Your task to perform on an android device: stop showing notifications on the lock screen Image 0: 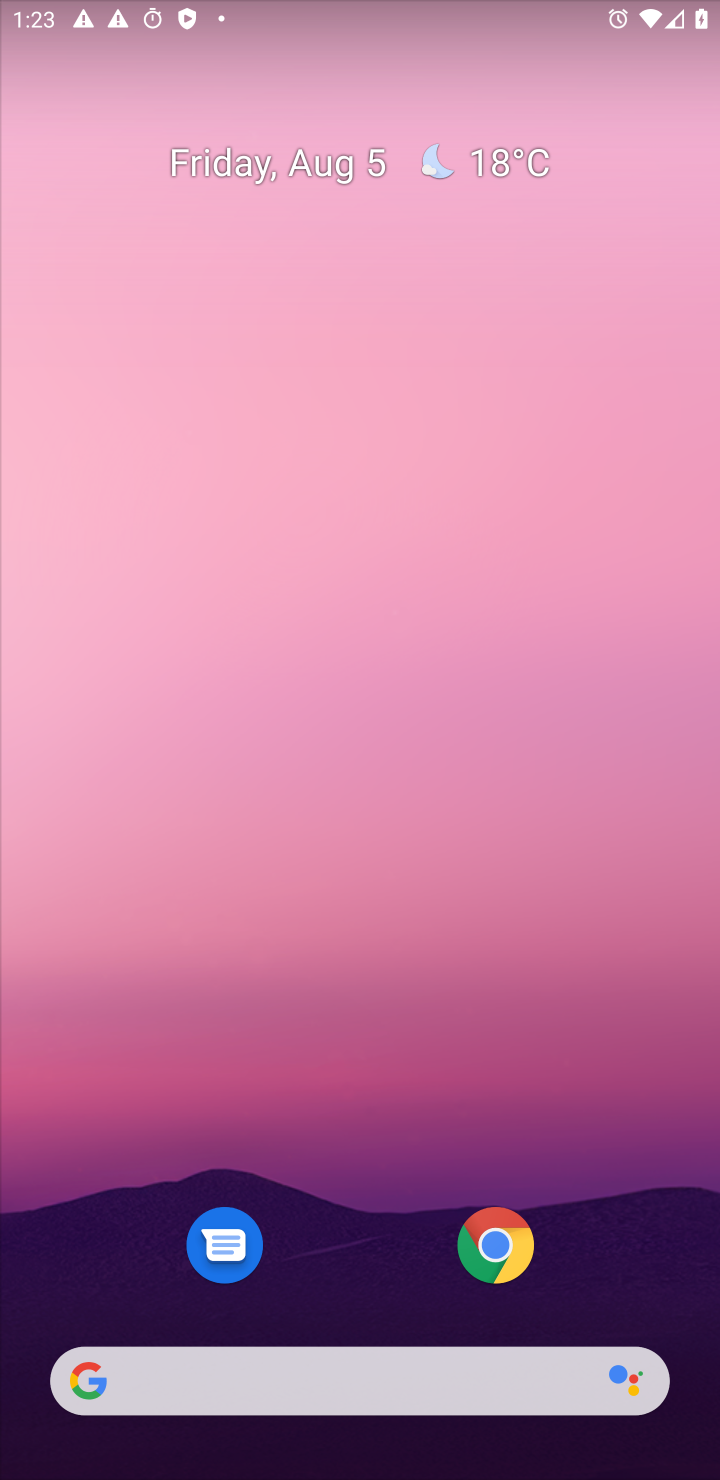
Step 0: press home button
Your task to perform on an android device: stop showing notifications on the lock screen Image 1: 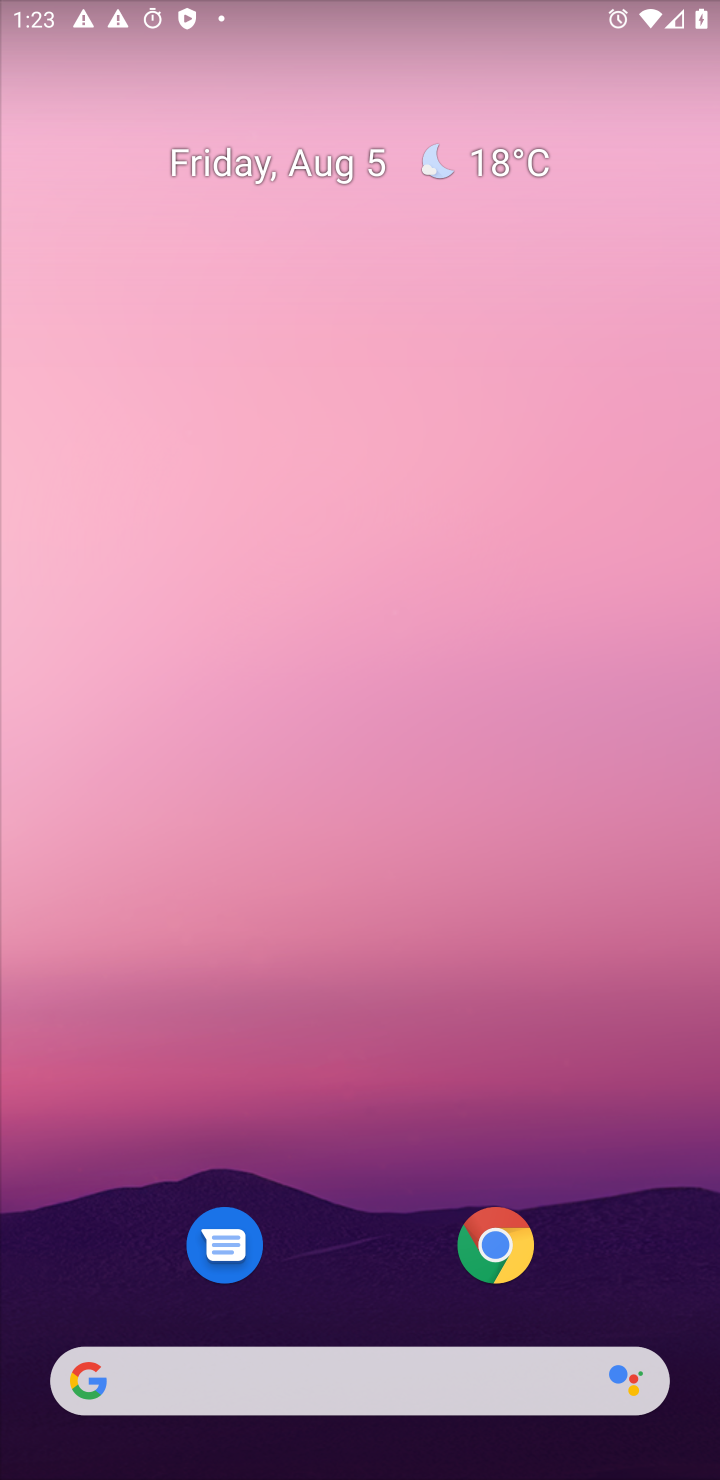
Step 1: drag from (383, 1298) to (376, 421)
Your task to perform on an android device: stop showing notifications on the lock screen Image 2: 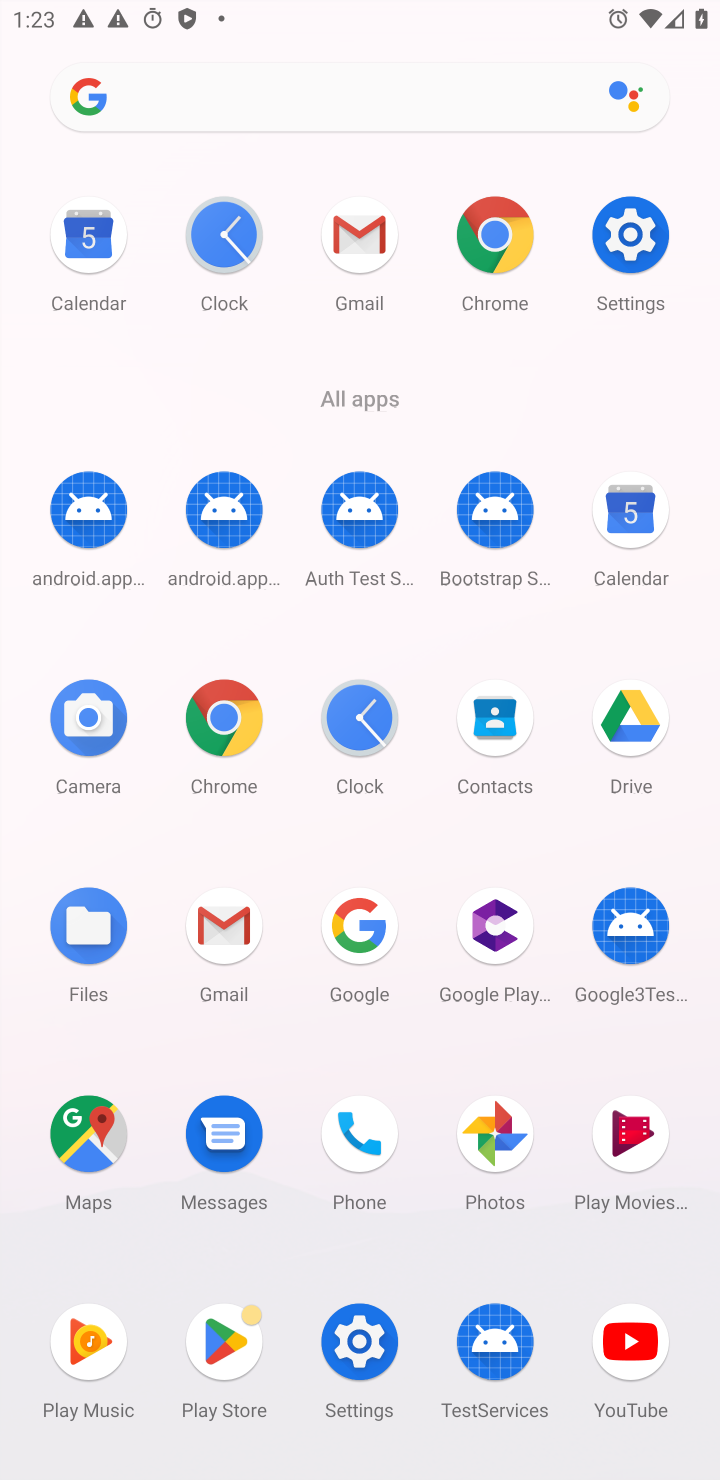
Step 2: click (620, 240)
Your task to perform on an android device: stop showing notifications on the lock screen Image 3: 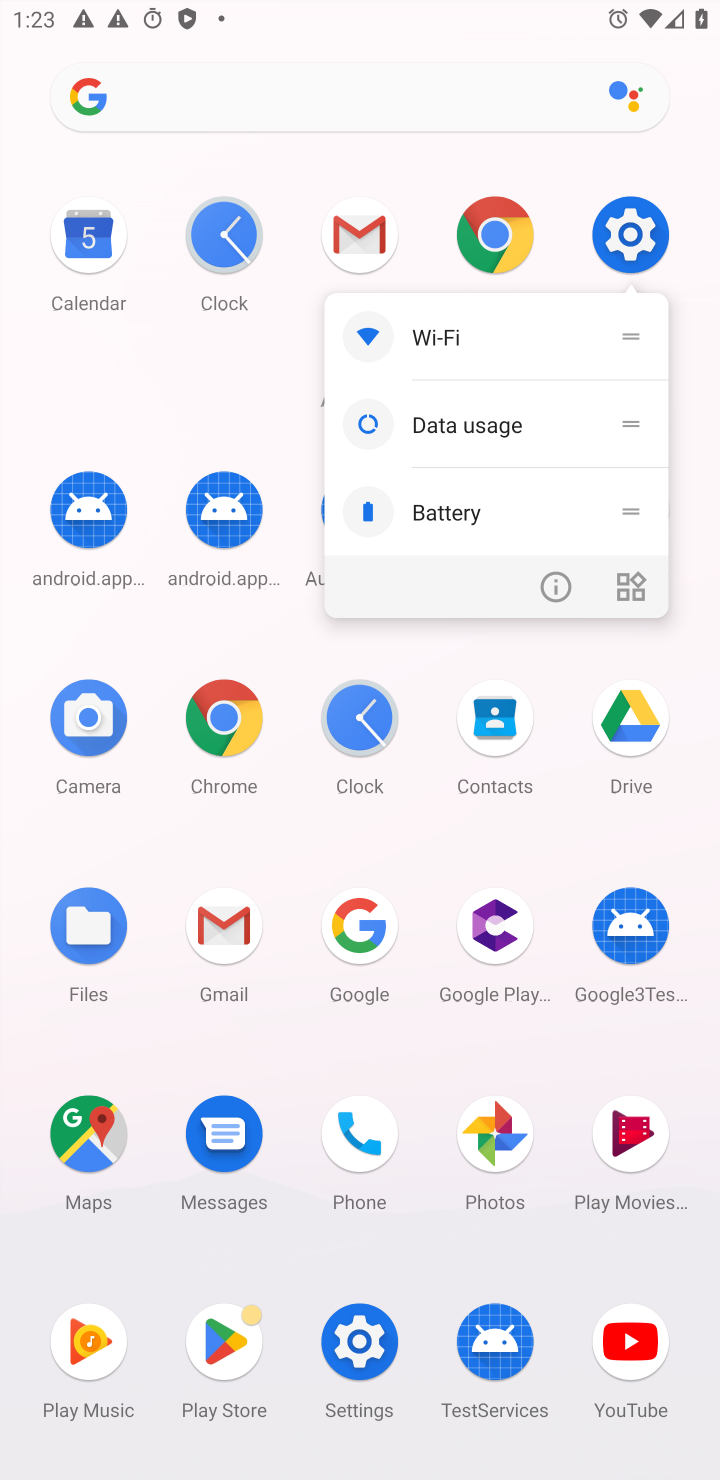
Step 3: click (620, 240)
Your task to perform on an android device: stop showing notifications on the lock screen Image 4: 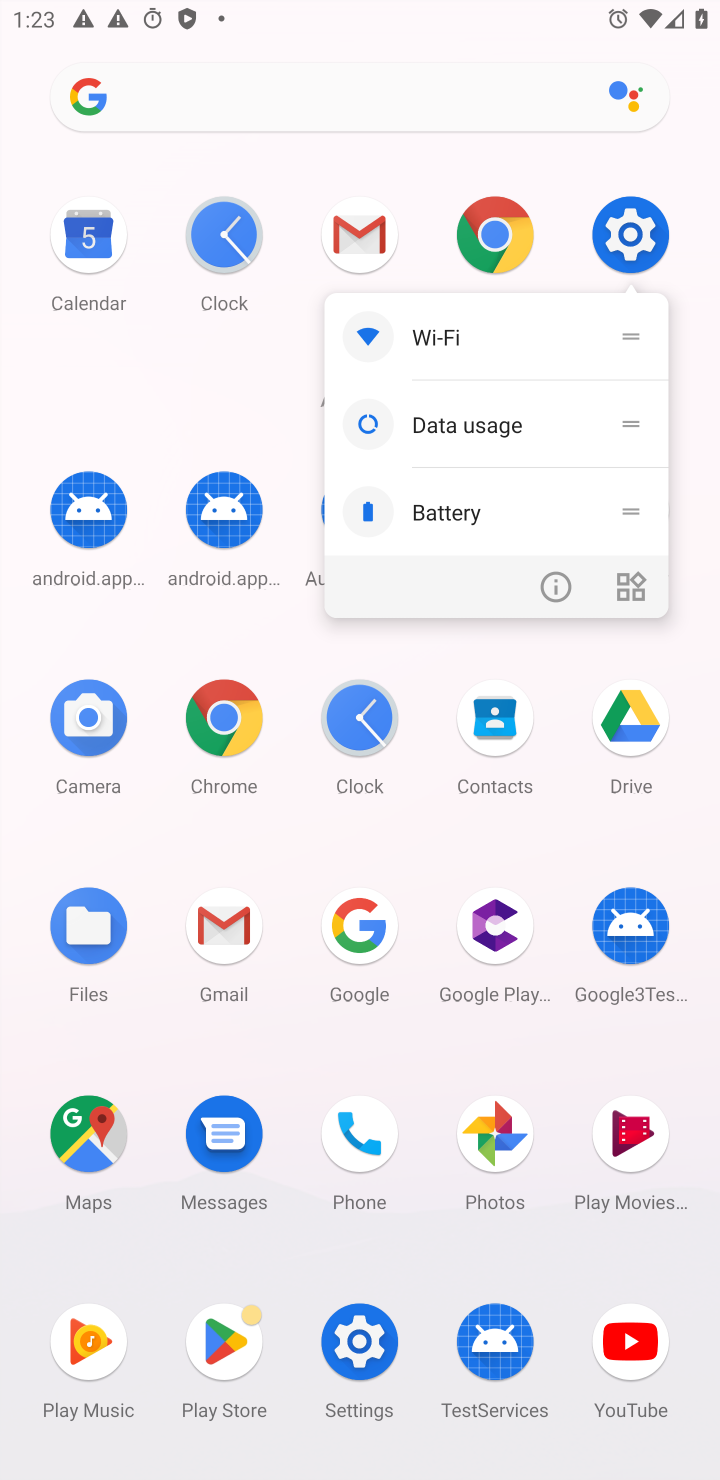
Step 4: click (640, 235)
Your task to perform on an android device: stop showing notifications on the lock screen Image 5: 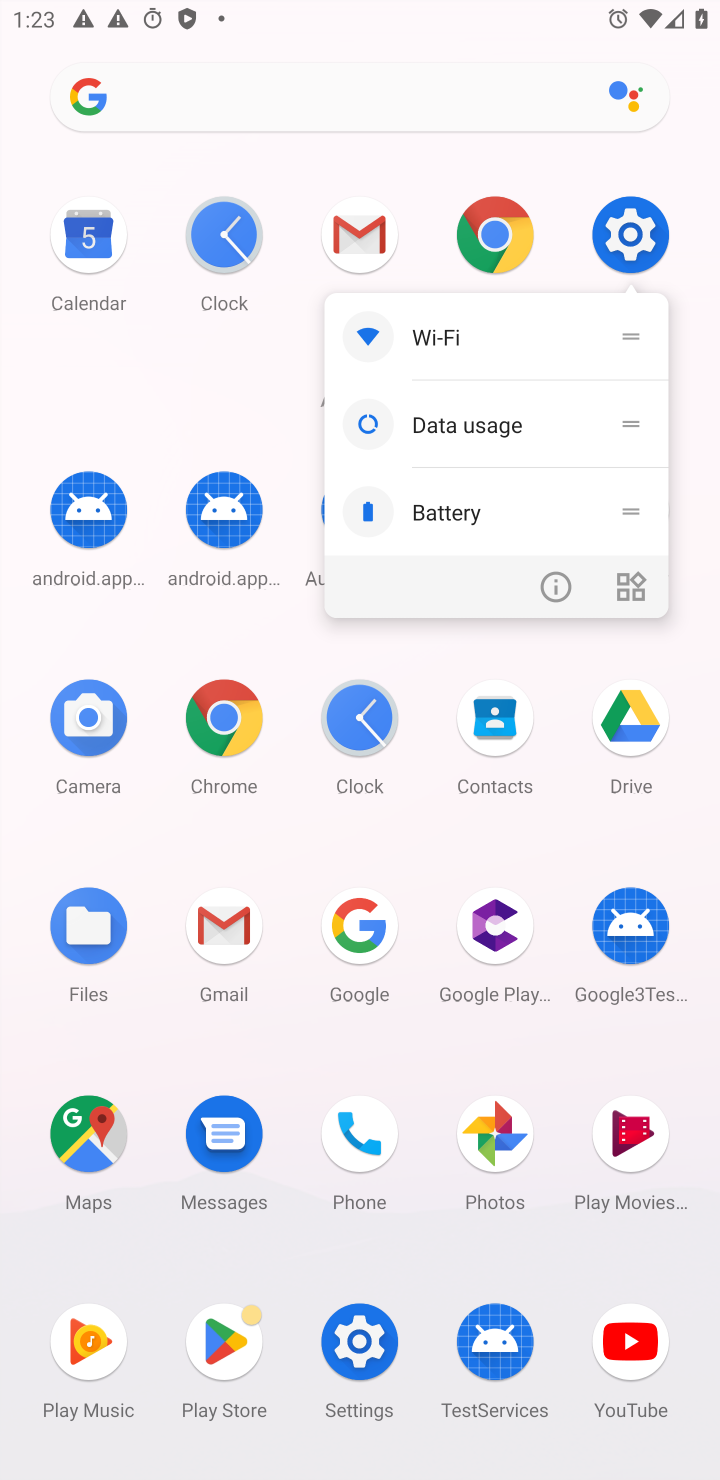
Step 5: click (640, 235)
Your task to perform on an android device: stop showing notifications on the lock screen Image 6: 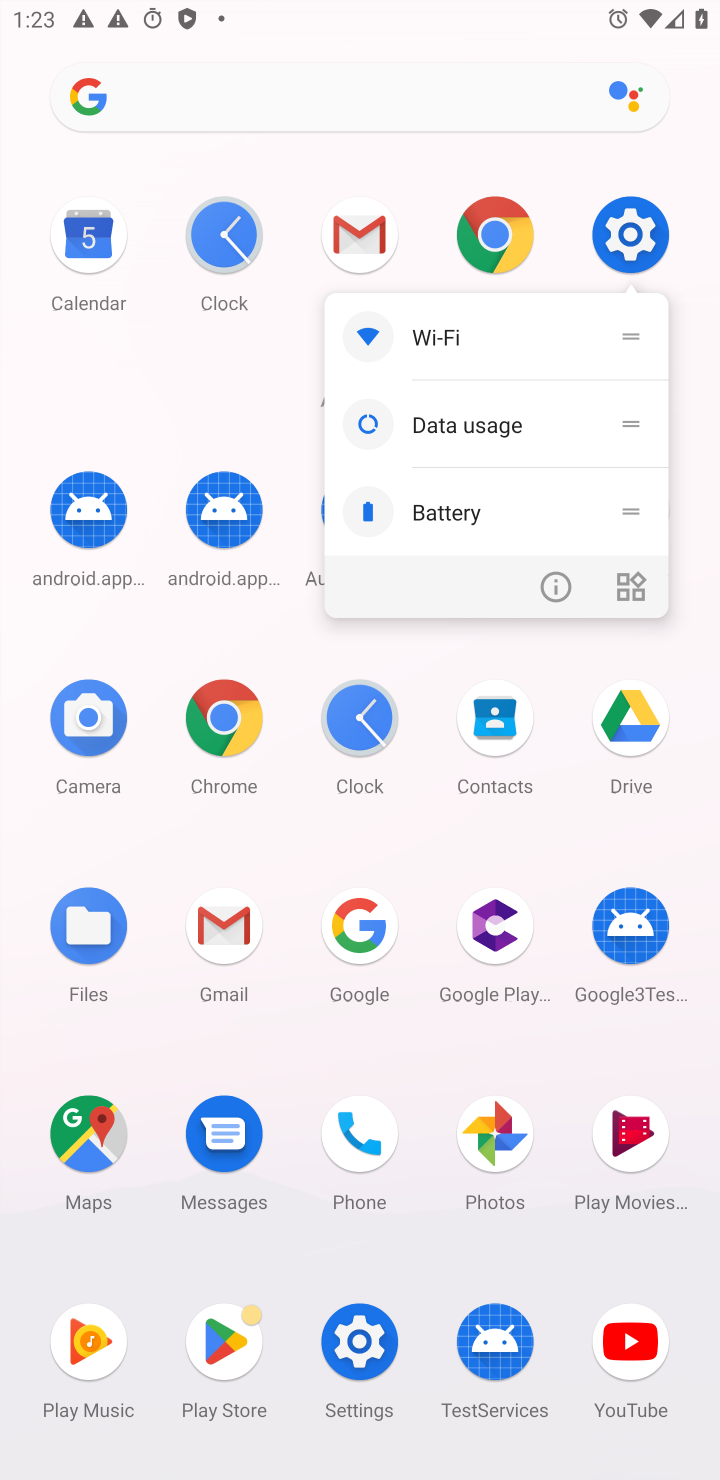
Step 6: click (628, 241)
Your task to perform on an android device: stop showing notifications on the lock screen Image 7: 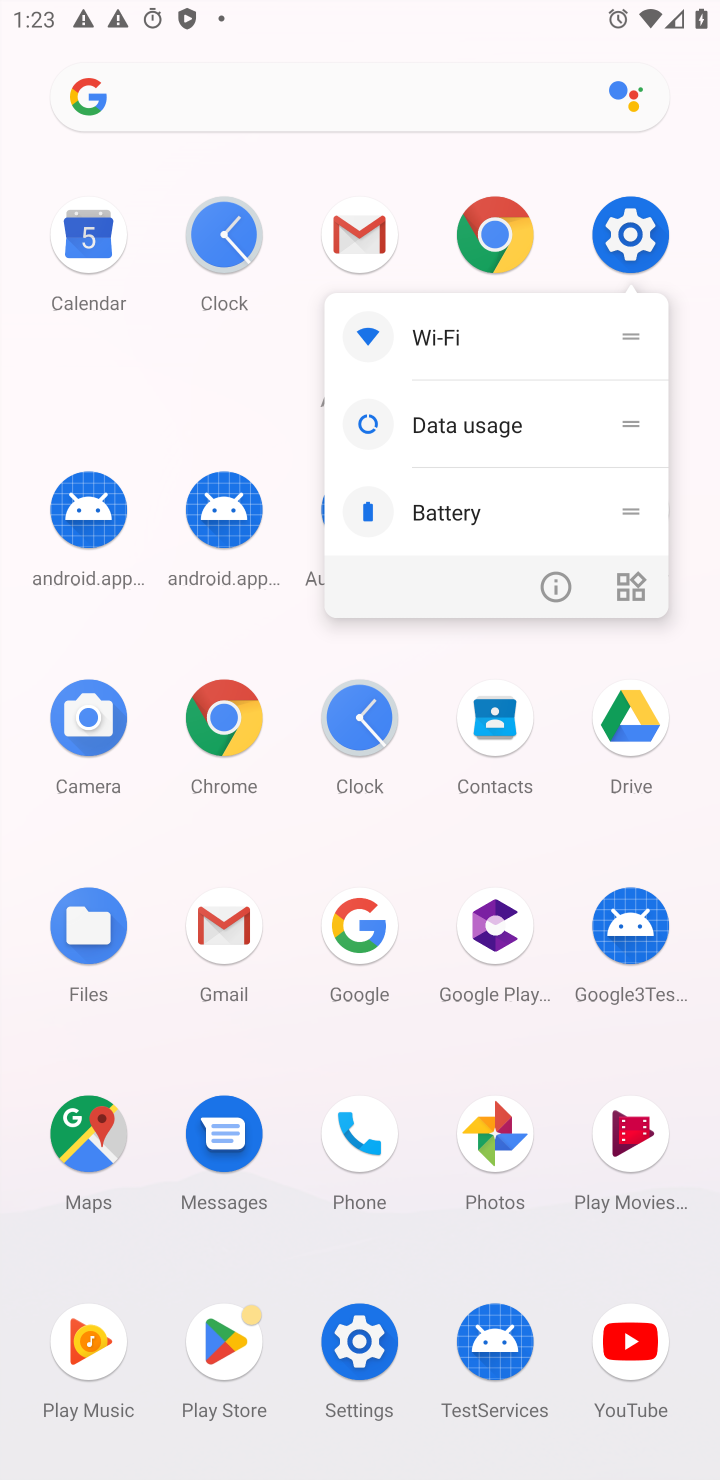
Step 7: click (626, 230)
Your task to perform on an android device: stop showing notifications on the lock screen Image 8: 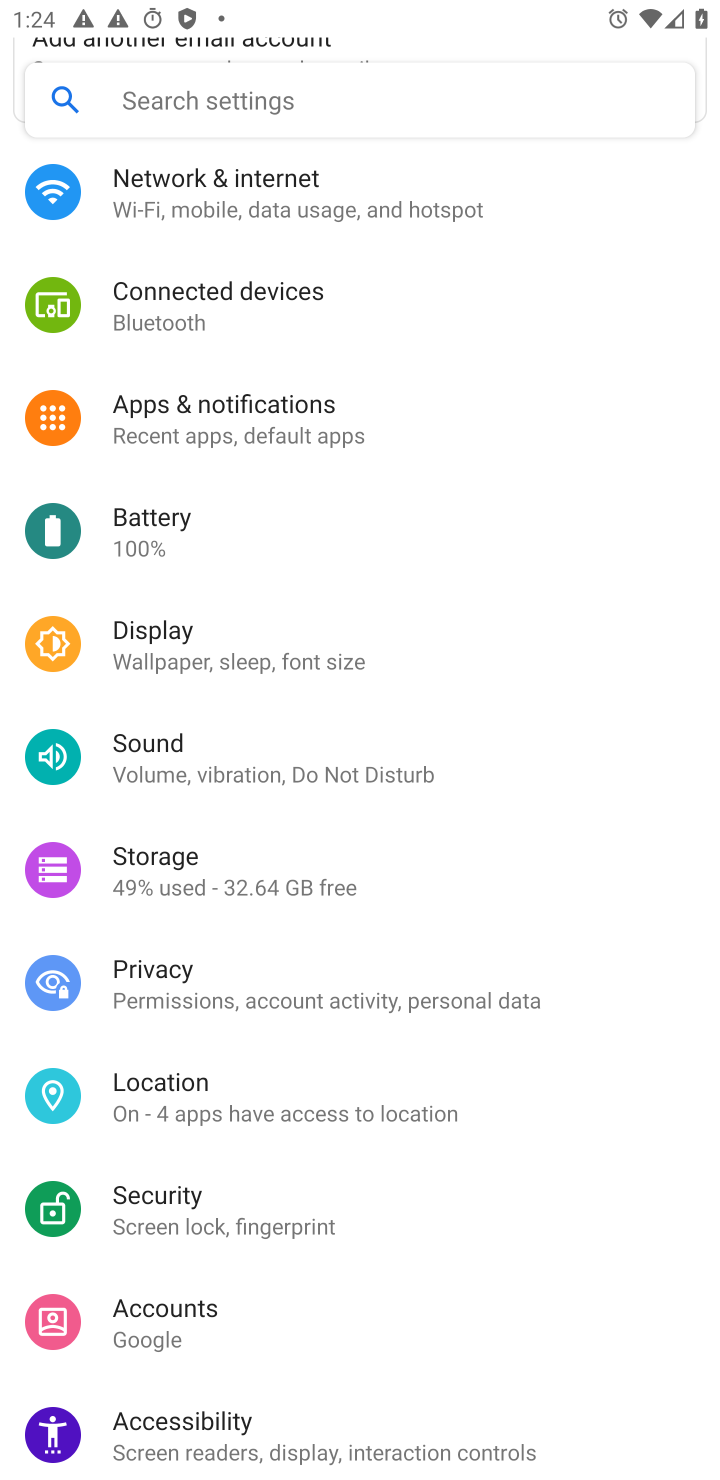
Step 8: click (185, 443)
Your task to perform on an android device: stop showing notifications on the lock screen Image 9: 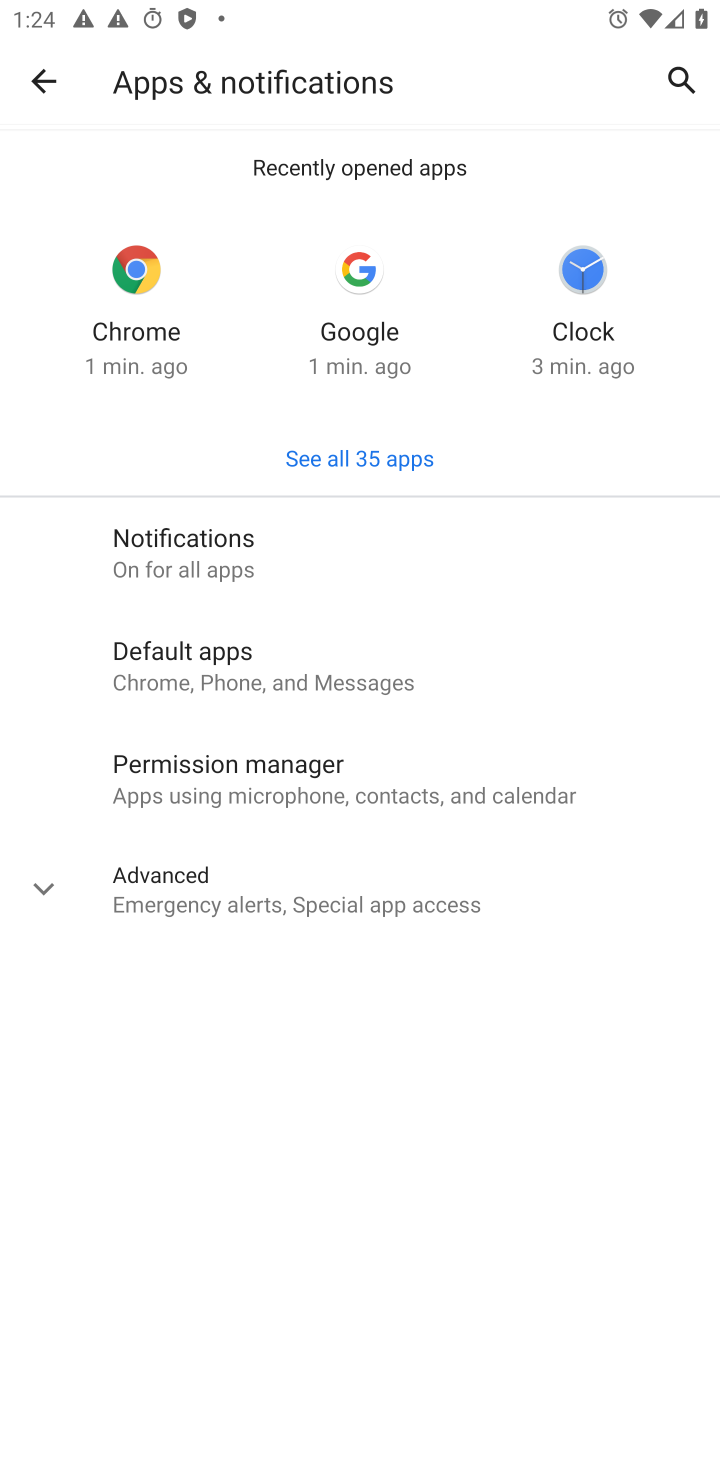
Step 9: click (195, 551)
Your task to perform on an android device: stop showing notifications on the lock screen Image 10: 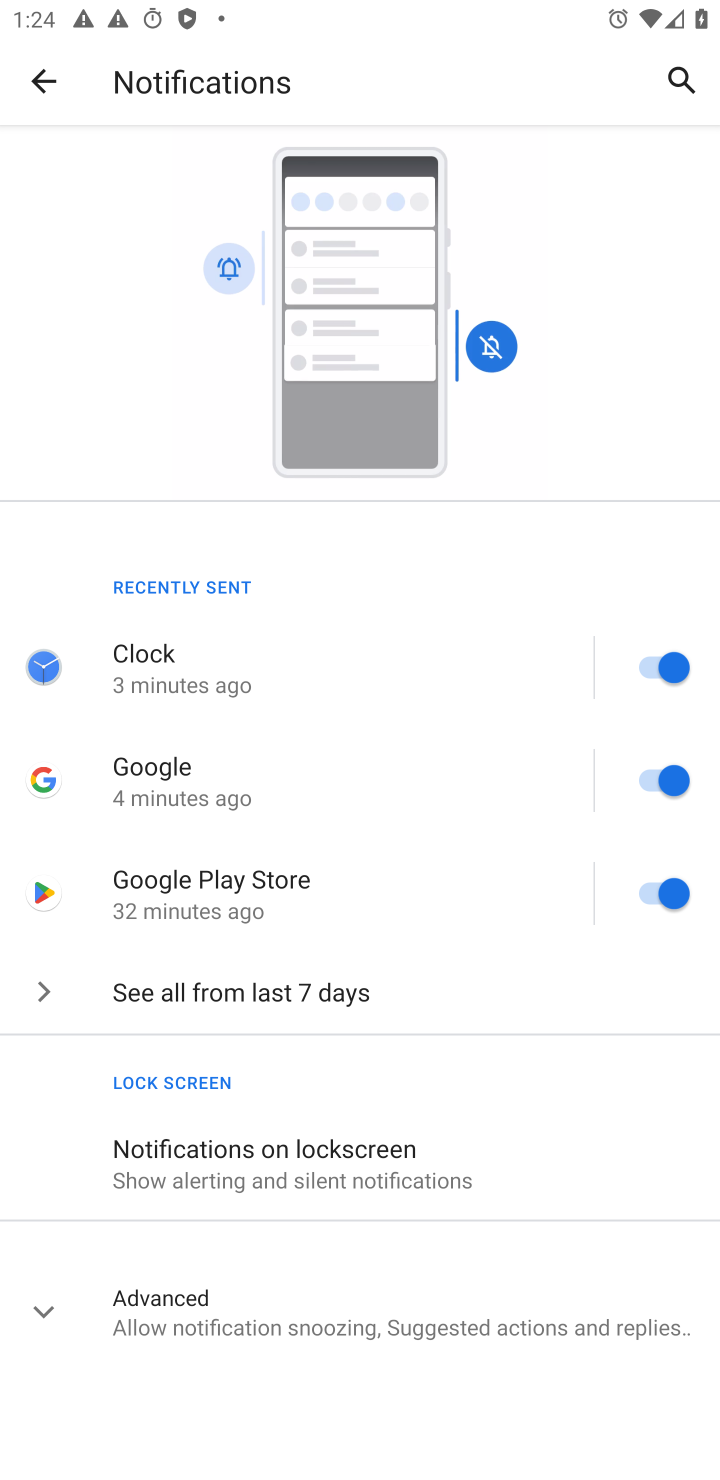
Step 10: click (317, 1162)
Your task to perform on an android device: stop showing notifications on the lock screen Image 11: 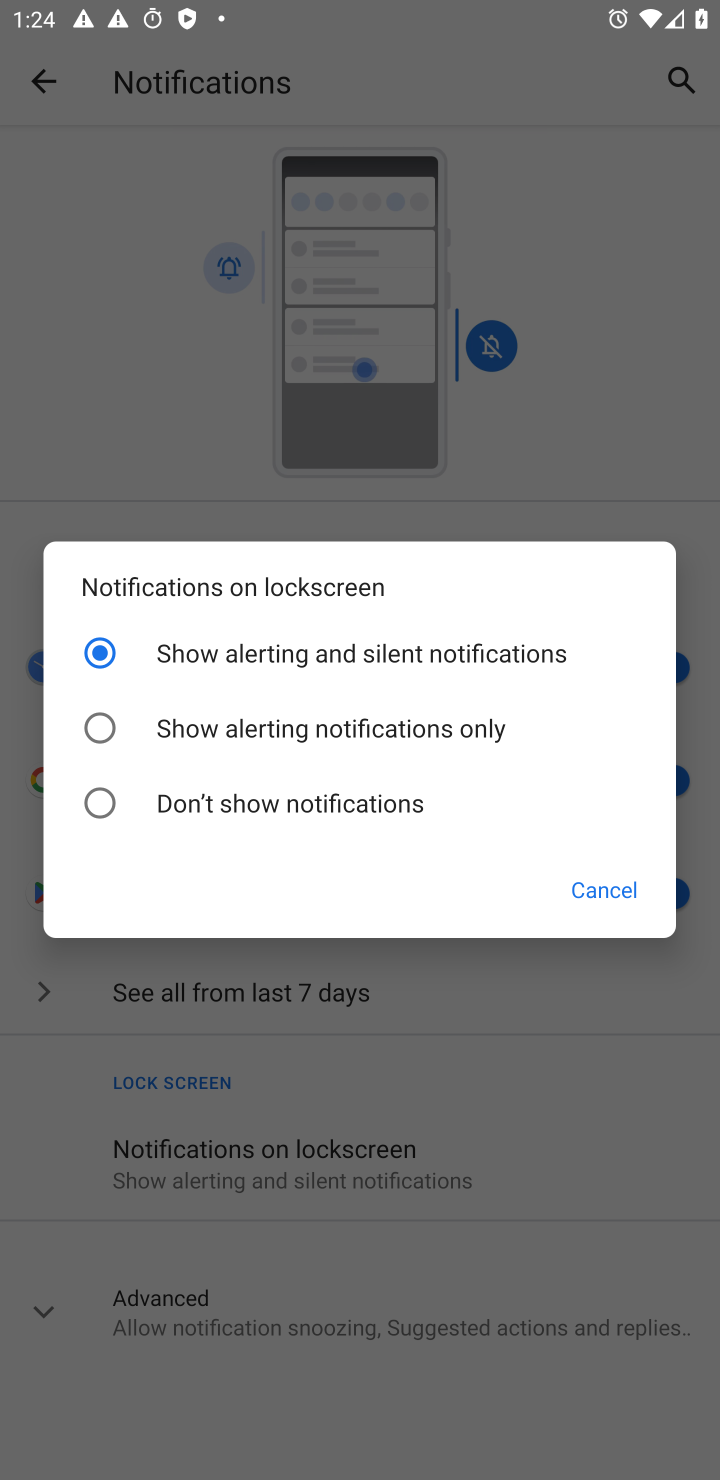
Step 11: click (91, 790)
Your task to perform on an android device: stop showing notifications on the lock screen Image 12: 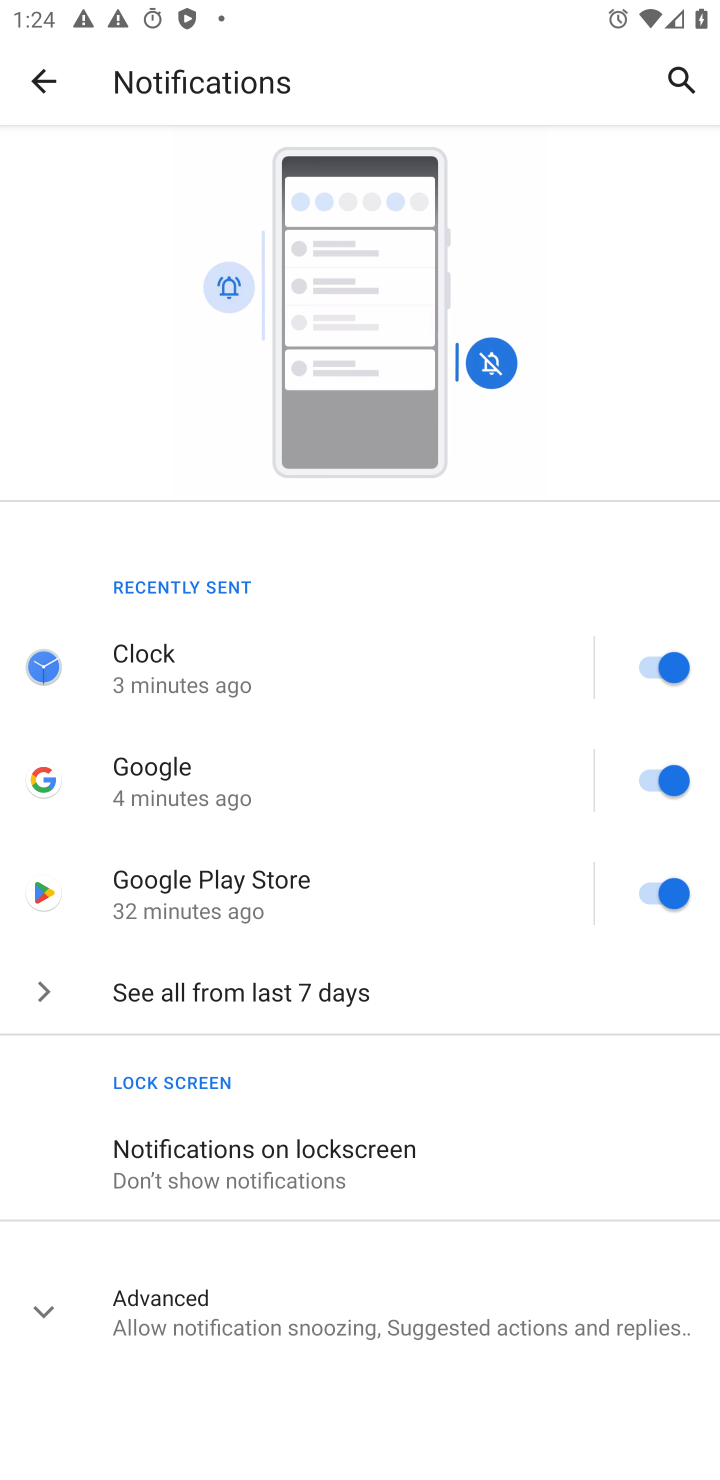
Step 12: task complete